Your task to perform on an android device: Go to Android settings Image 0: 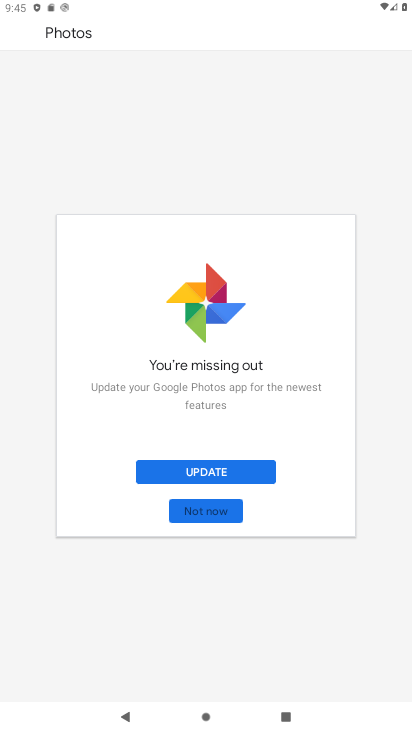
Step 0: press home button
Your task to perform on an android device: Go to Android settings Image 1: 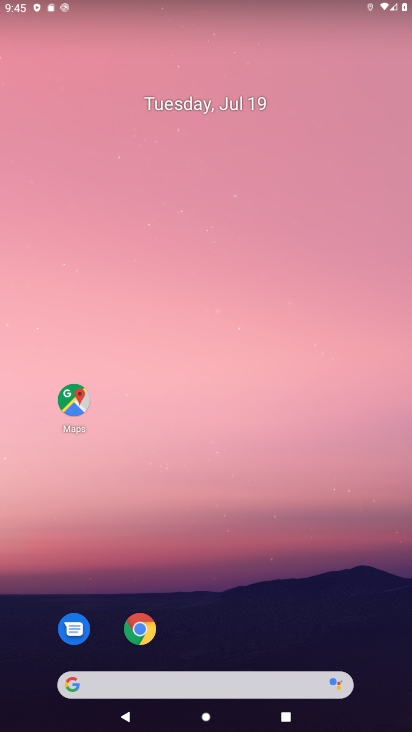
Step 1: drag from (160, 631) to (242, 50)
Your task to perform on an android device: Go to Android settings Image 2: 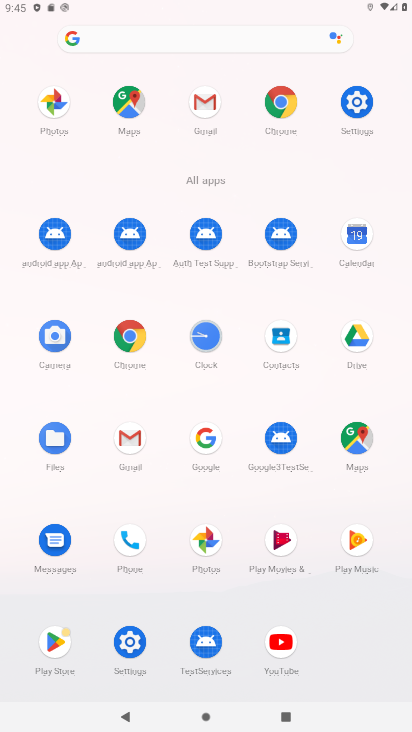
Step 2: click (130, 678)
Your task to perform on an android device: Go to Android settings Image 3: 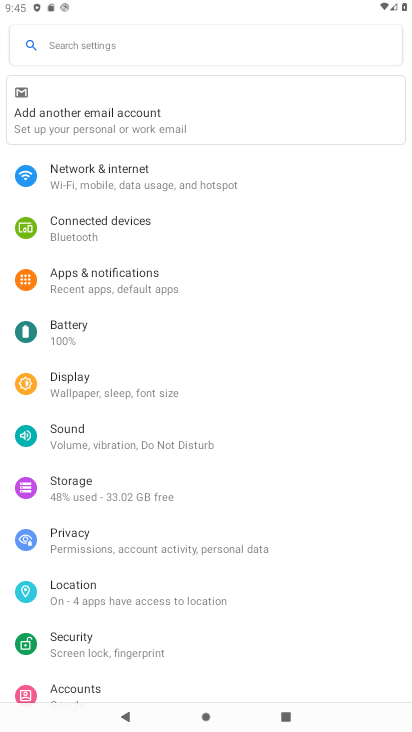
Step 3: drag from (138, 642) to (176, 226)
Your task to perform on an android device: Go to Android settings Image 4: 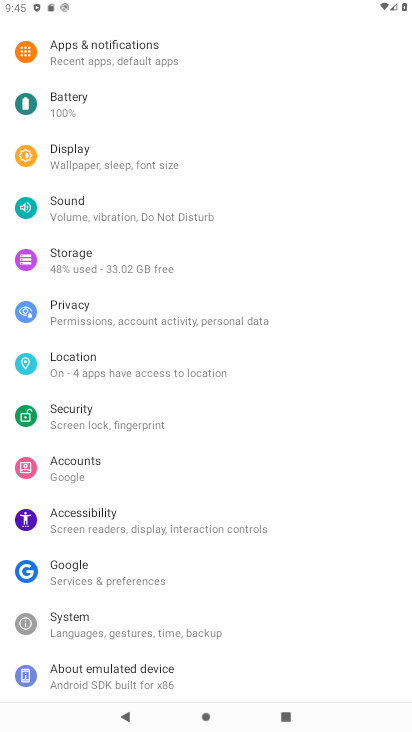
Step 4: click (110, 676)
Your task to perform on an android device: Go to Android settings Image 5: 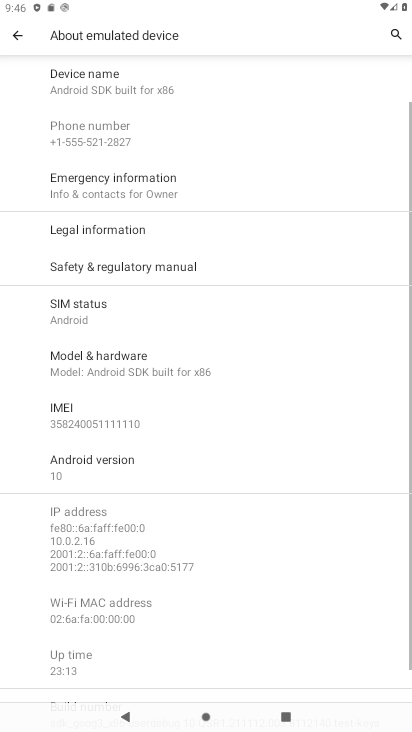
Step 5: click (115, 477)
Your task to perform on an android device: Go to Android settings Image 6: 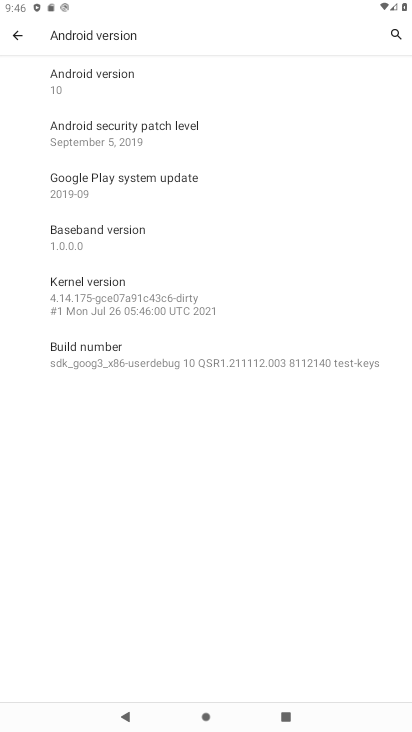
Step 6: task complete